Your task to perform on an android device: turn vacation reply on in the gmail app Image 0: 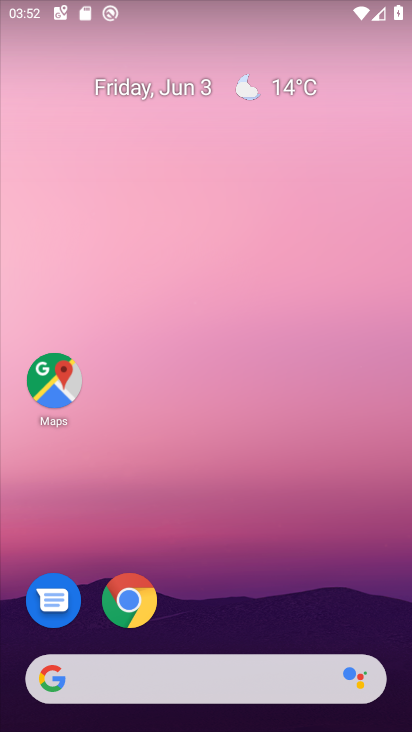
Step 0: drag from (274, 599) to (261, 182)
Your task to perform on an android device: turn vacation reply on in the gmail app Image 1: 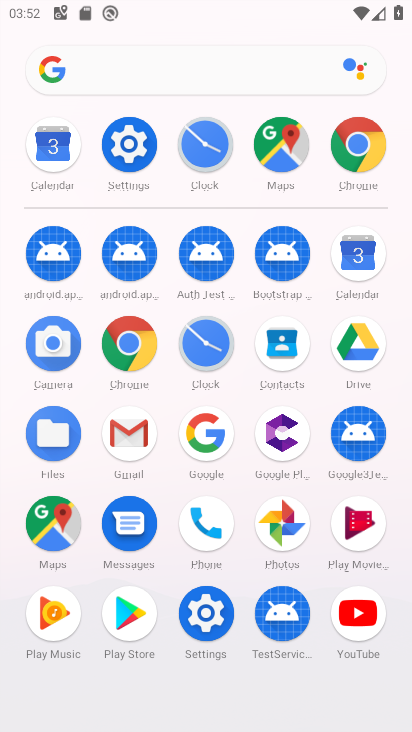
Step 1: click (130, 434)
Your task to perform on an android device: turn vacation reply on in the gmail app Image 2: 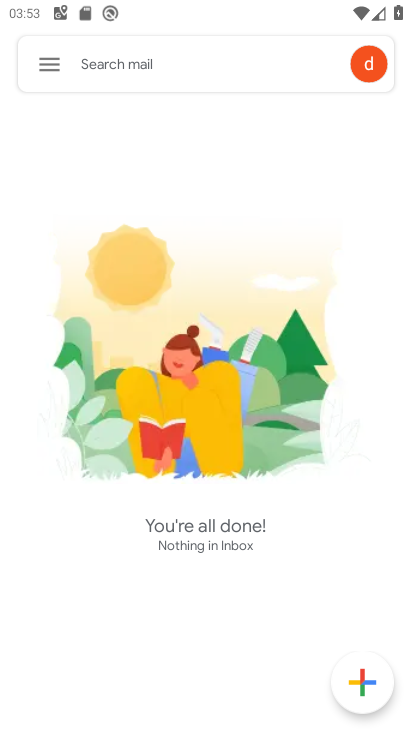
Step 2: click (49, 61)
Your task to perform on an android device: turn vacation reply on in the gmail app Image 3: 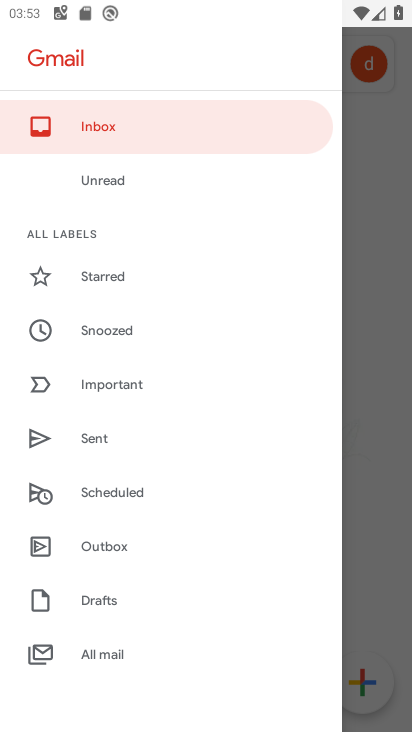
Step 3: drag from (129, 618) to (170, 192)
Your task to perform on an android device: turn vacation reply on in the gmail app Image 4: 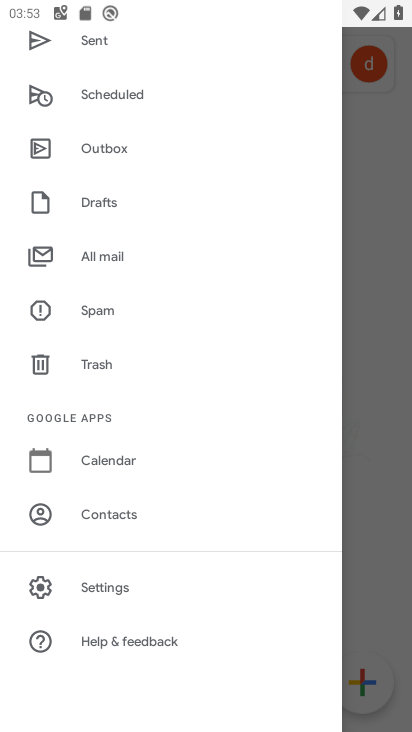
Step 4: click (110, 585)
Your task to perform on an android device: turn vacation reply on in the gmail app Image 5: 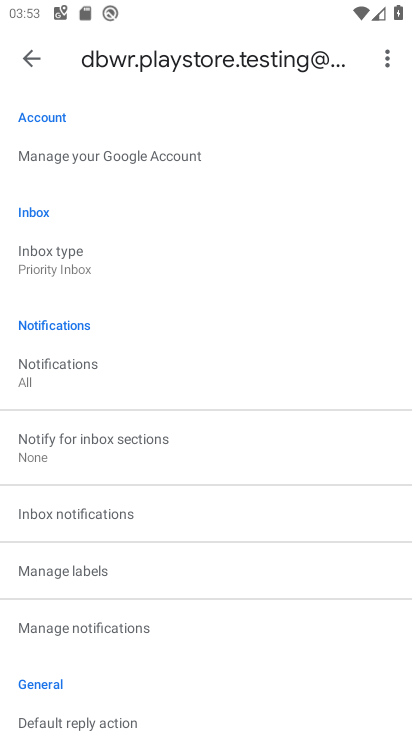
Step 5: drag from (181, 618) to (262, 191)
Your task to perform on an android device: turn vacation reply on in the gmail app Image 6: 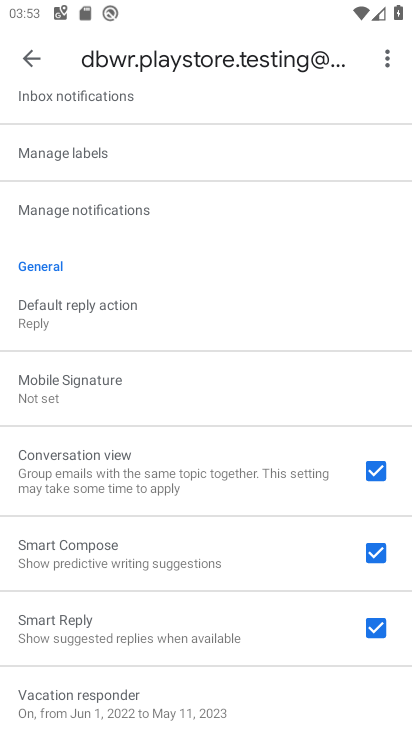
Step 6: drag from (219, 636) to (238, 363)
Your task to perform on an android device: turn vacation reply on in the gmail app Image 7: 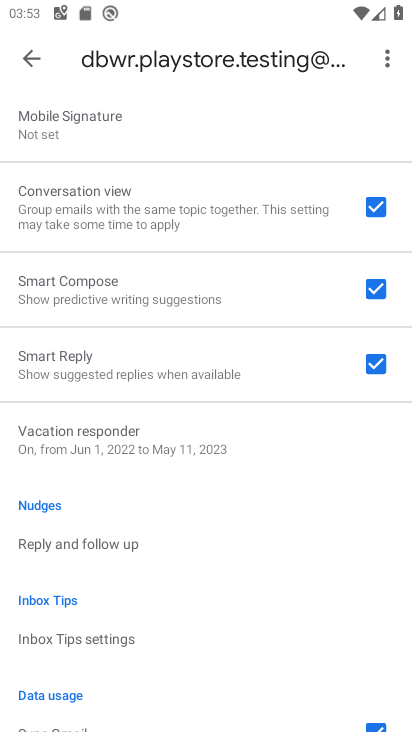
Step 7: click (168, 465)
Your task to perform on an android device: turn vacation reply on in the gmail app Image 8: 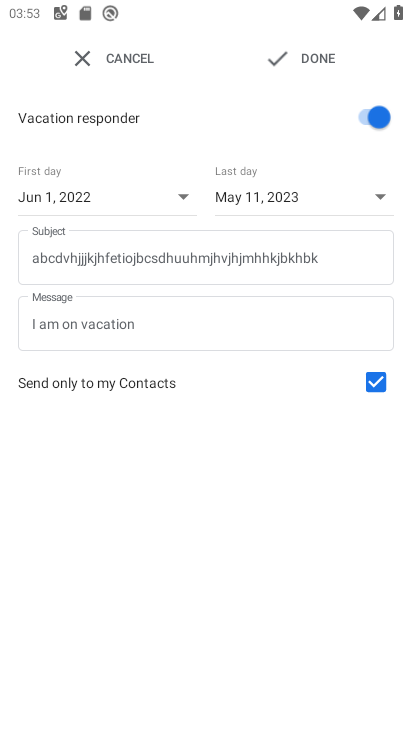
Step 8: task complete